Your task to perform on an android device: open app "Firefox Browser" (install if not already installed) and enter user name: "hashed@outlook.com" and password: "congestive" Image 0: 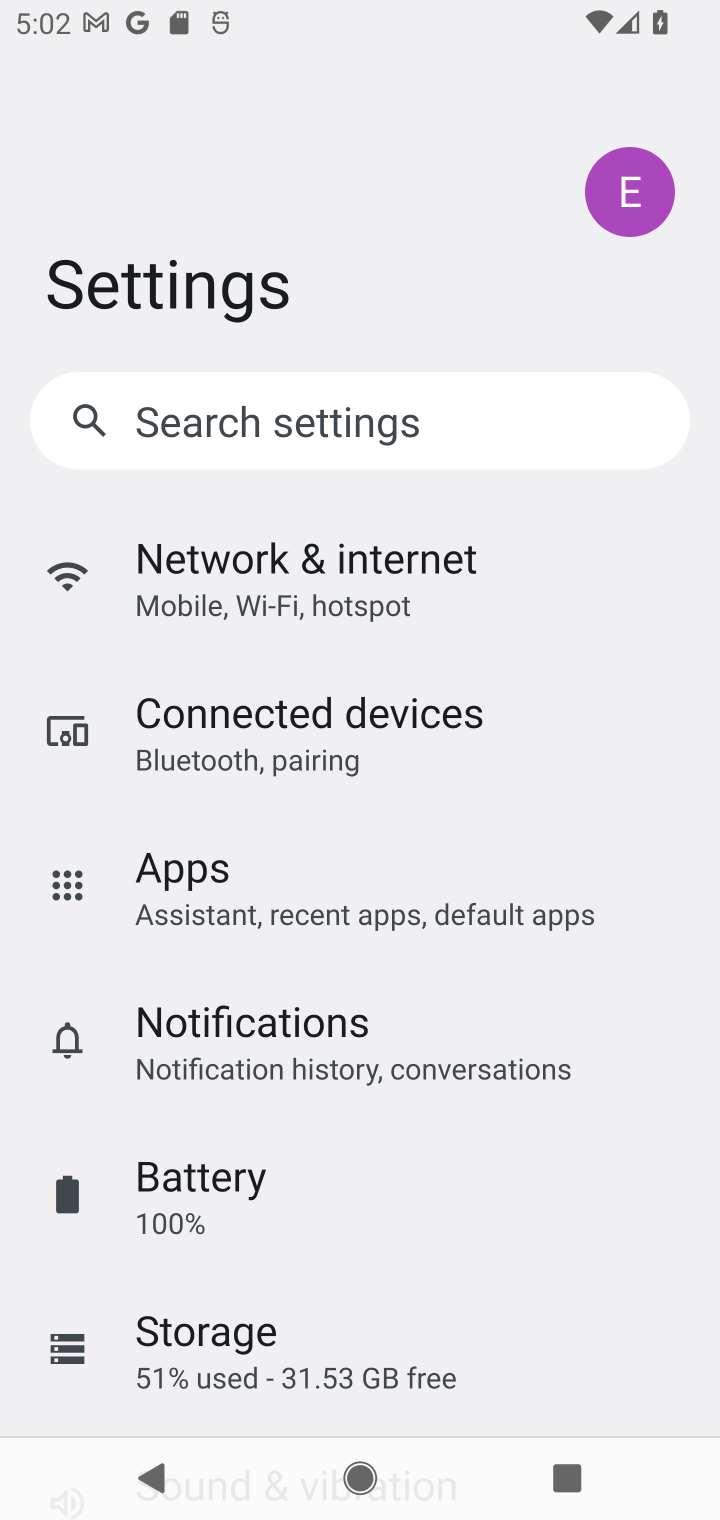
Step 0: press home button
Your task to perform on an android device: open app "Firefox Browser" (install if not already installed) and enter user name: "hashed@outlook.com" and password: "congestive" Image 1: 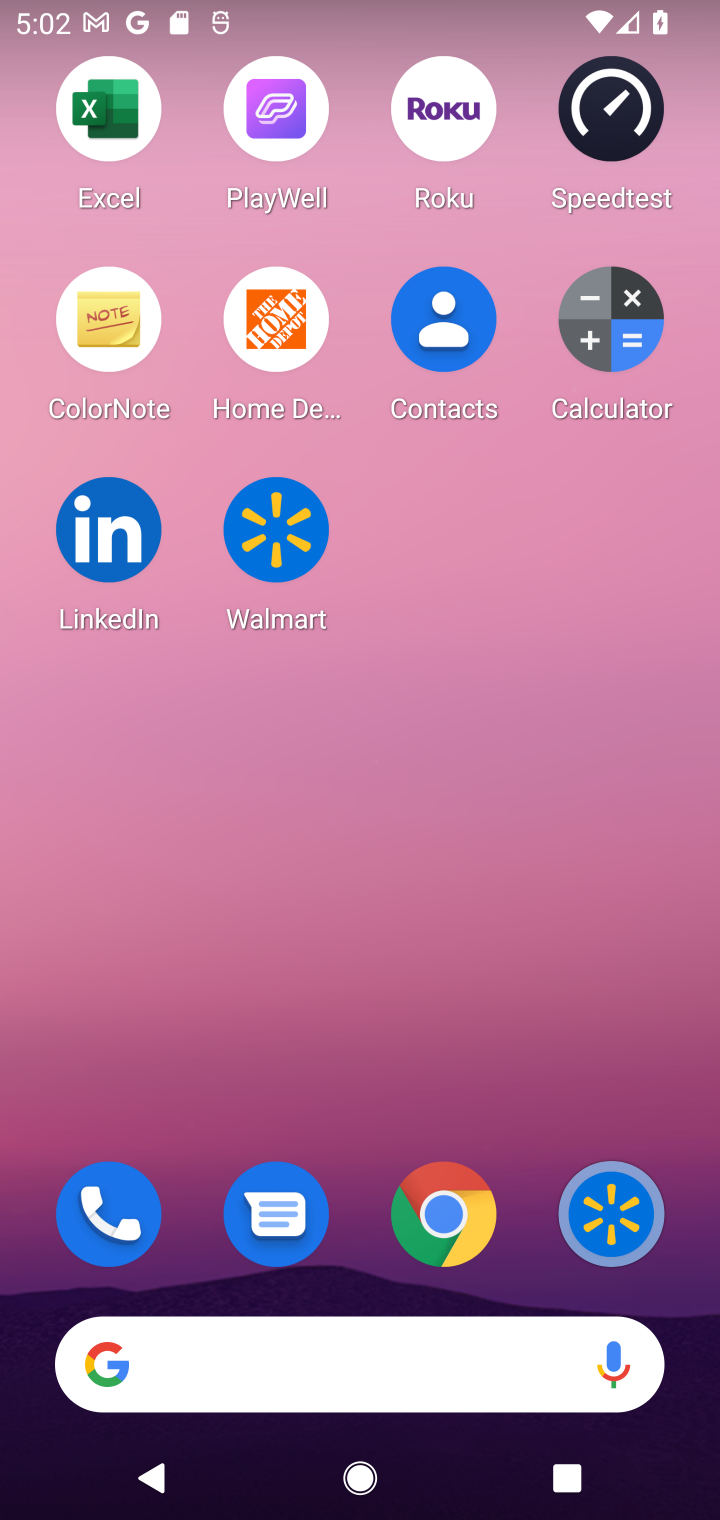
Step 1: drag from (520, 1280) to (504, 255)
Your task to perform on an android device: open app "Firefox Browser" (install if not already installed) and enter user name: "hashed@outlook.com" and password: "congestive" Image 2: 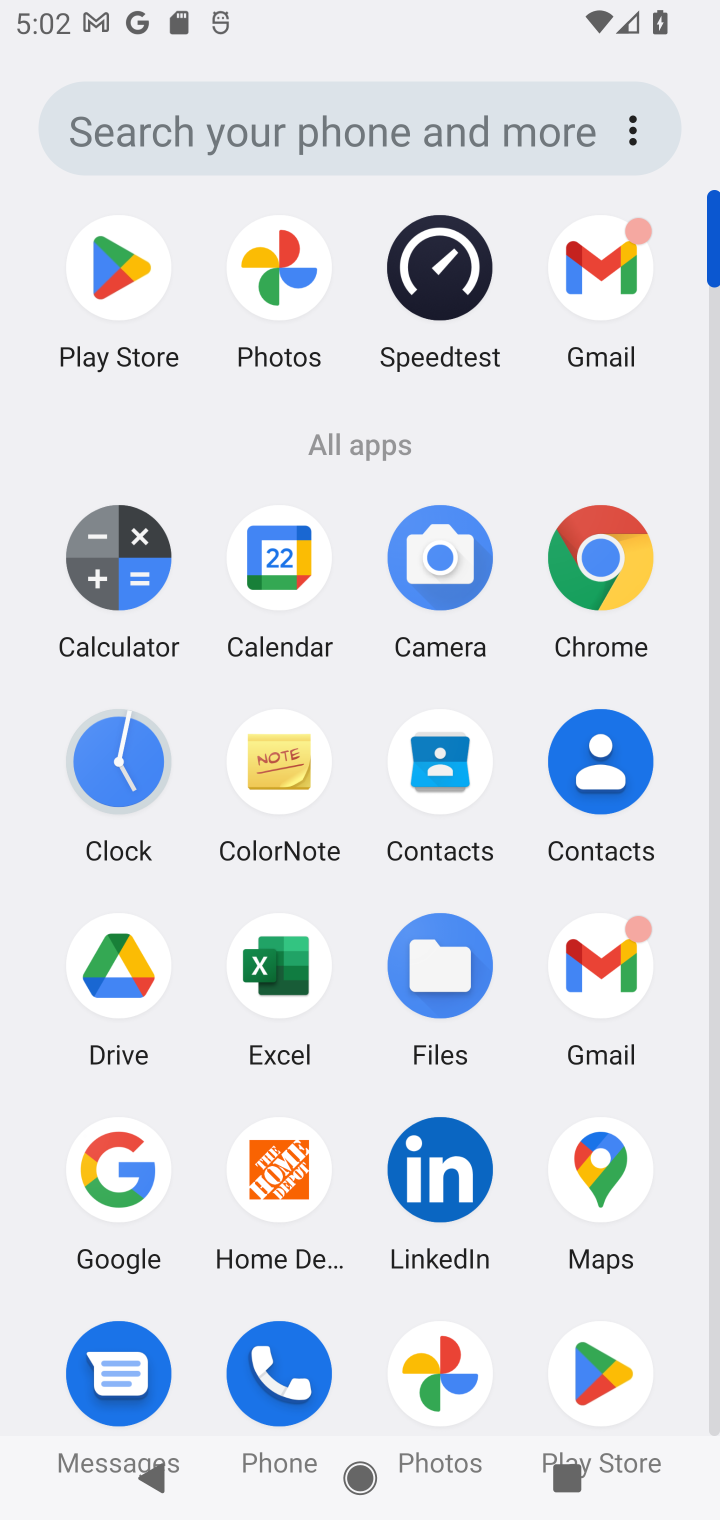
Step 2: click (600, 1368)
Your task to perform on an android device: open app "Firefox Browser" (install if not already installed) and enter user name: "hashed@outlook.com" and password: "congestive" Image 3: 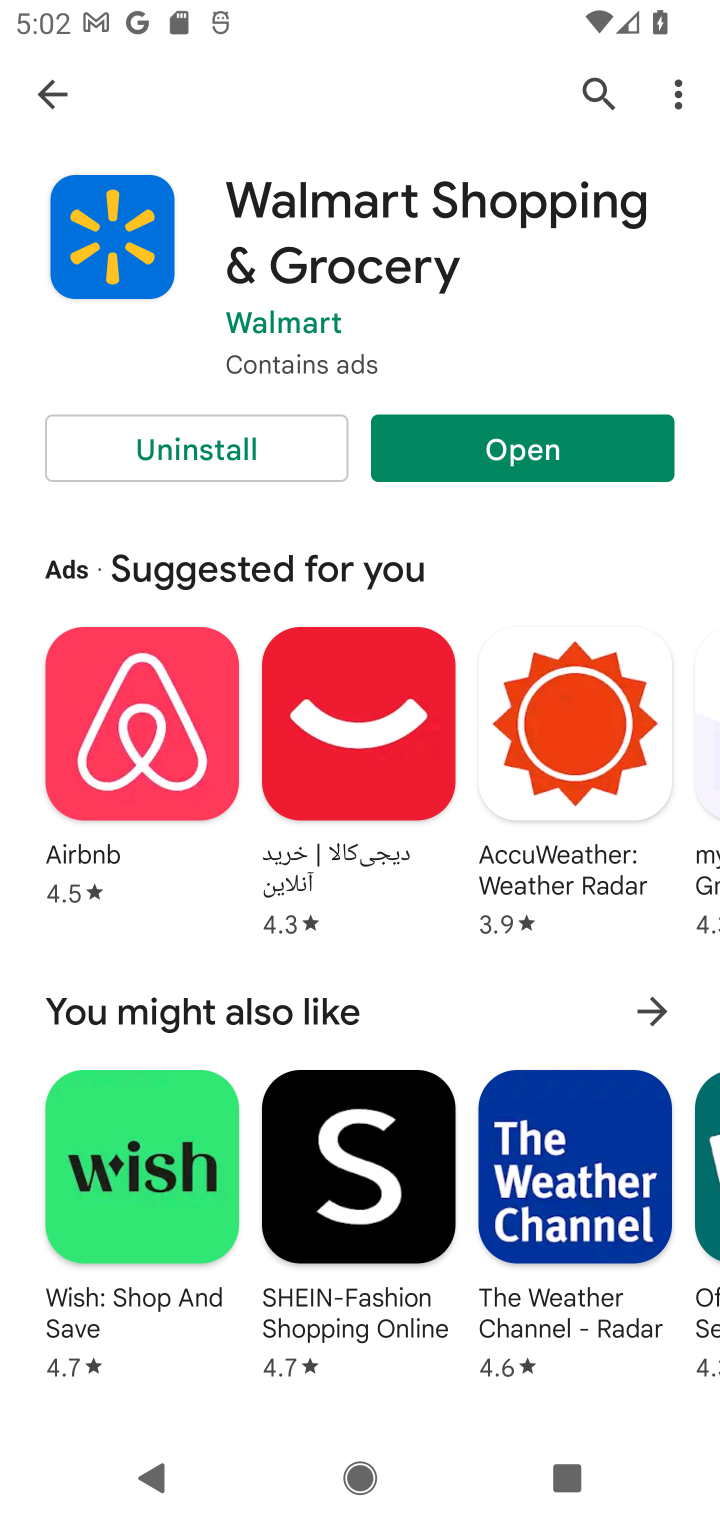
Step 3: click (585, 93)
Your task to perform on an android device: open app "Firefox Browser" (install if not already installed) and enter user name: "hashed@outlook.com" and password: "congestive" Image 4: 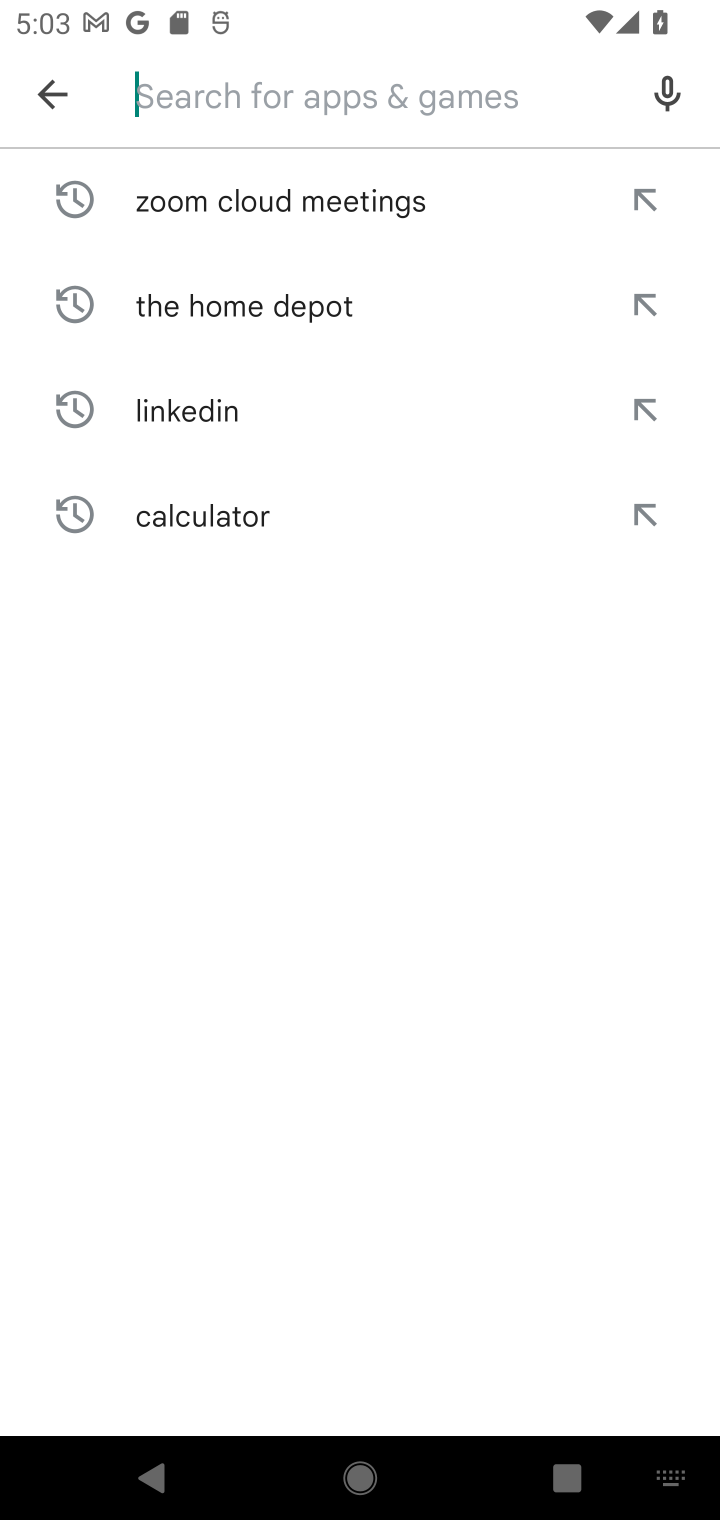
Step 4: type "Firefox Browser"
Your task to perform on an android device: open app "Firefox Browser" (install if not already installed) and enter user name: "hashed@outlook.com" and password: "congestive" Image 5: 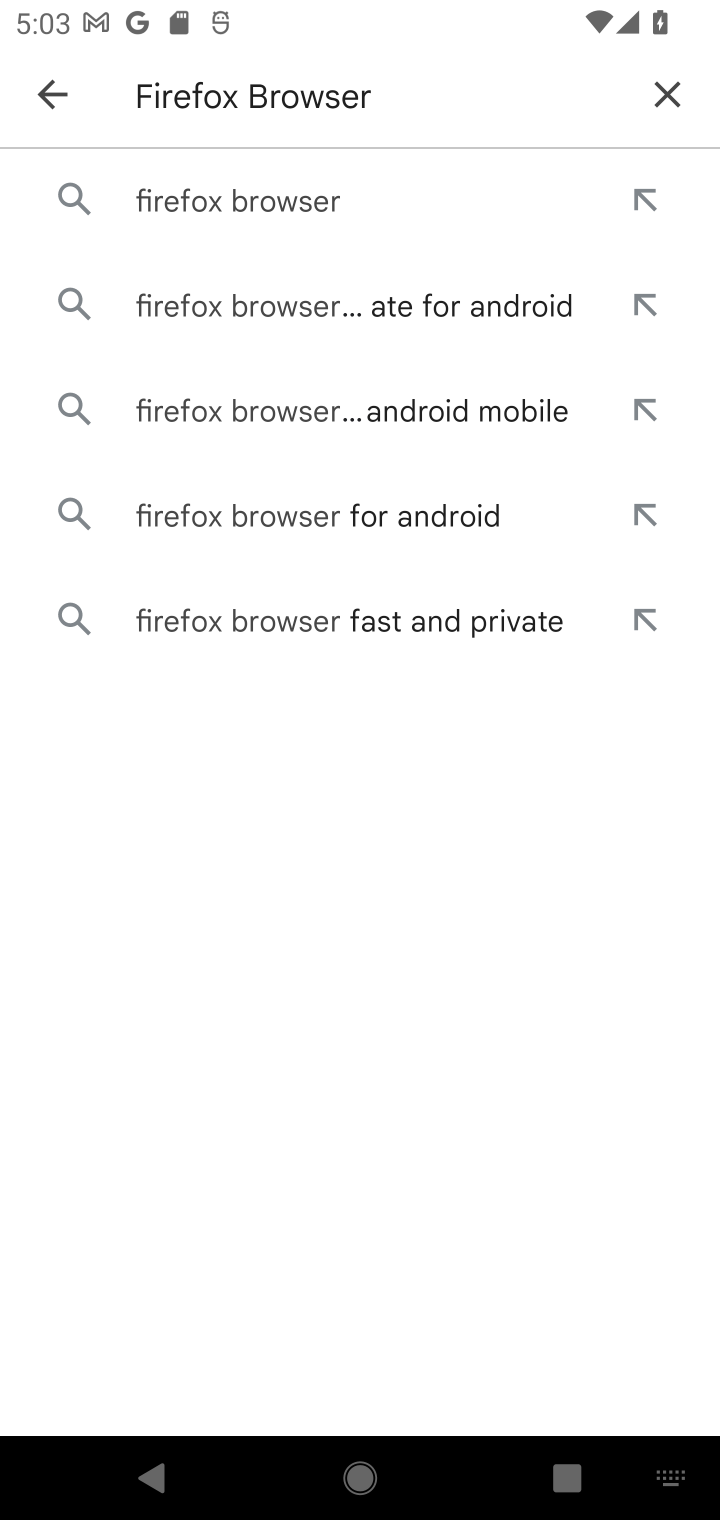
Step 5: click (304, 180)
Your task to perform on an android device: open app "Firefox Browser" (install if not already installed) and enter user name: "hashed@outlook.com" and password: "congestive" Image 6: 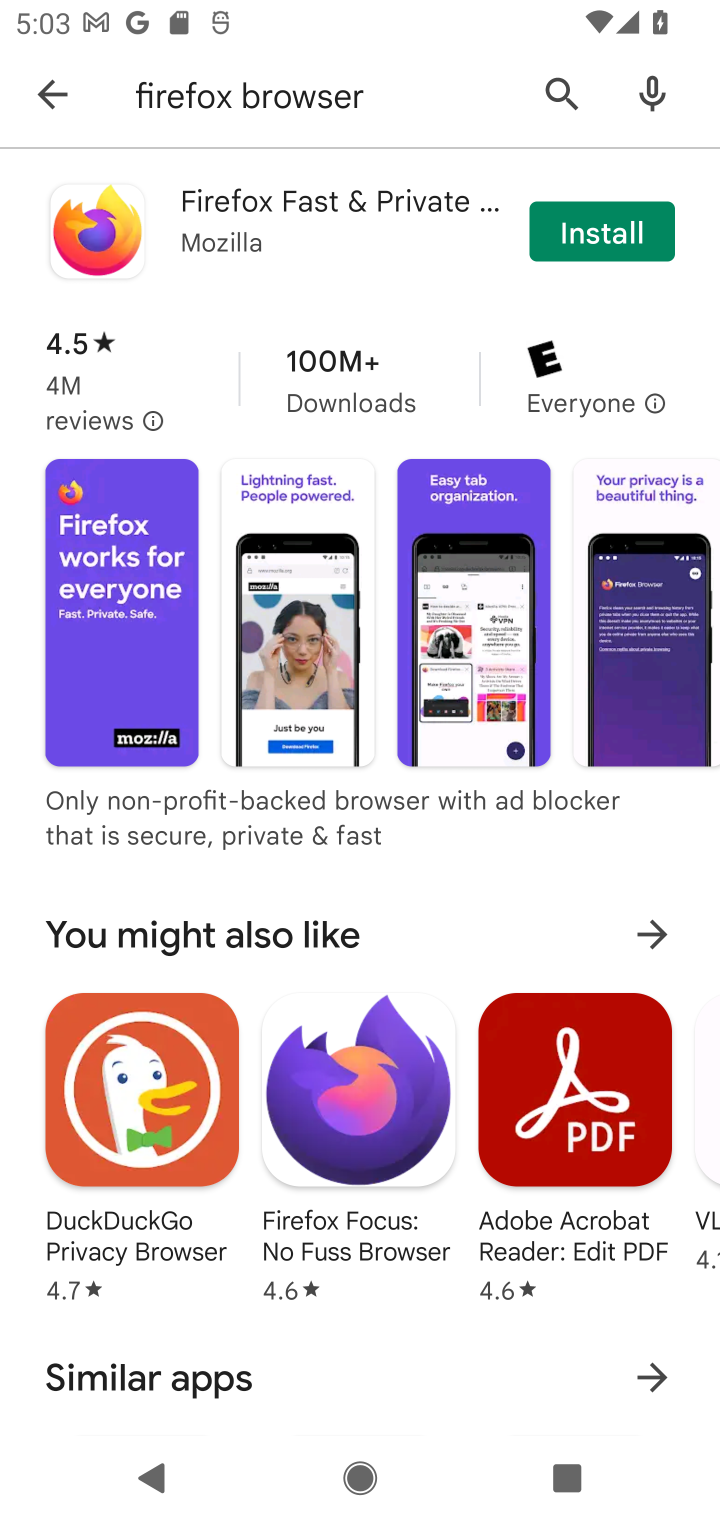
Step 6: click (594, 236)
Your task to perform on an android device: open app "Firefox Browser" (install if not already installed) and enter user name: "hashed@outlook.com" and password: "congestive" Image 7: 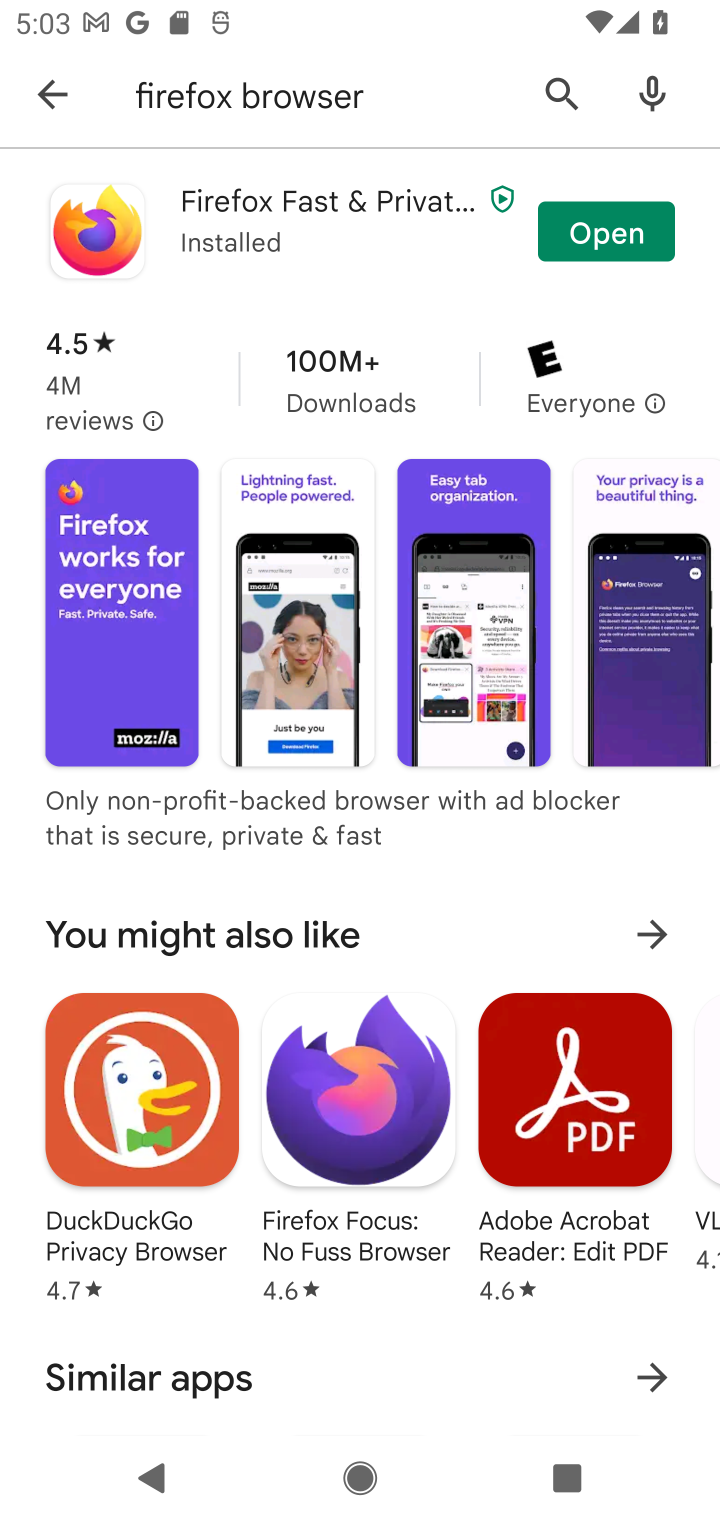
Step 7: click (583, 228)
Your task to perform on an android device: open app "Firefox Browser" (install if not already installed) and enter user name: "hashed@outlook.com" and password: "congestive" Image 8: 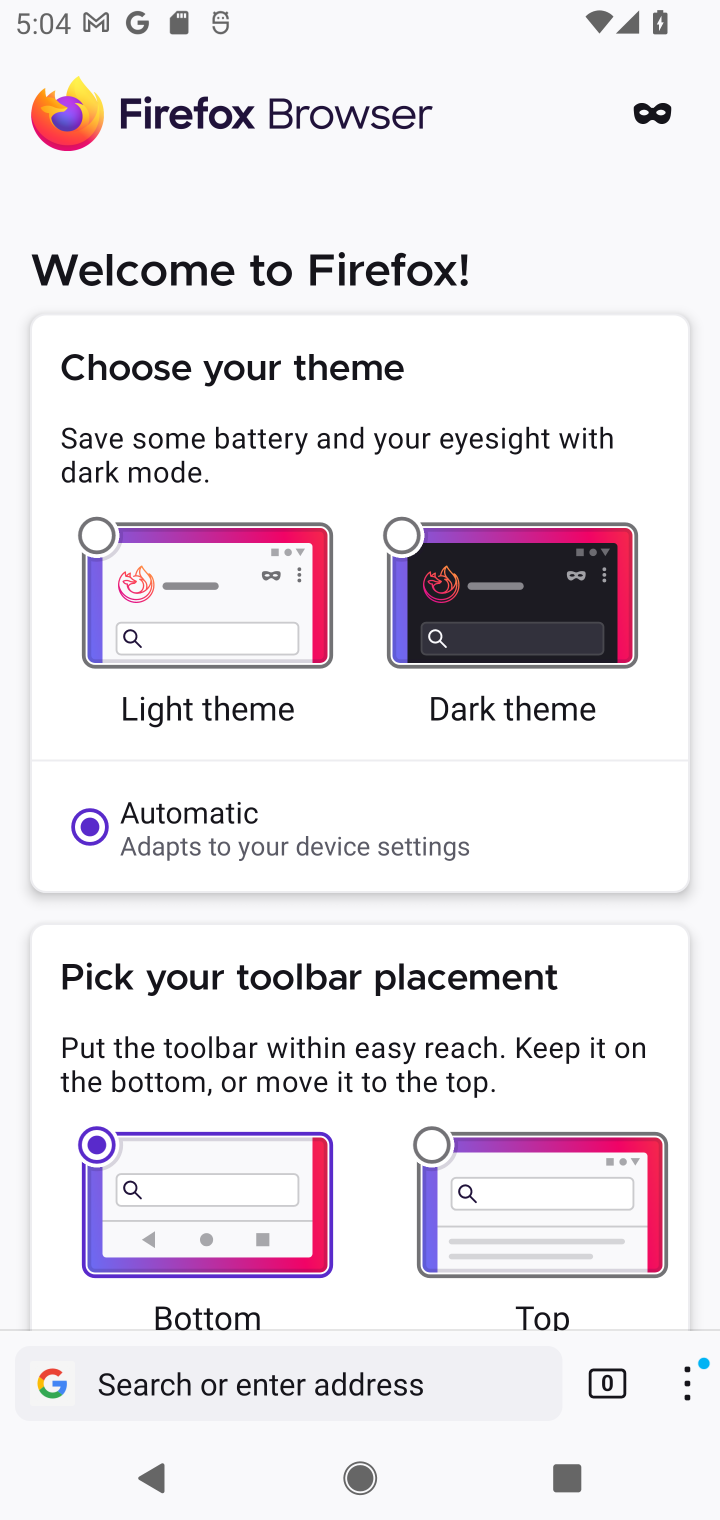
Step 8: drag from (364, 1283) to (346, 223)
Your task to perform on an android device: open app "Firefox Browser" (install if not already installed) and enter user name: "hashed@outlook.com" and password: "congestive" Image 9: 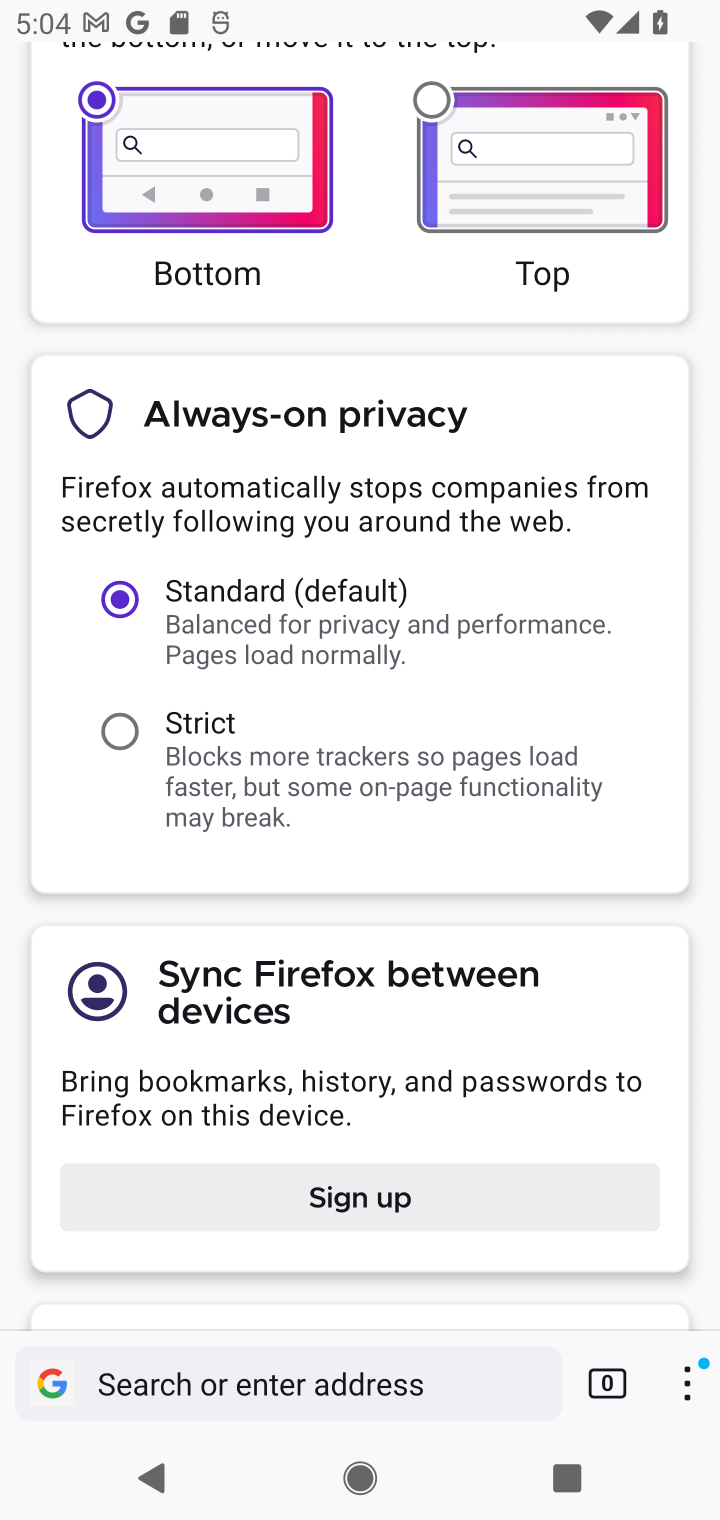
Step 9: drag from (353, 1073) to (316, 370)
Your task to perform on an android device: open app "Firefox Browser" (install if not already installed) and enter user name: "hashed@outlook.com" and password: "congestive" Image 10: 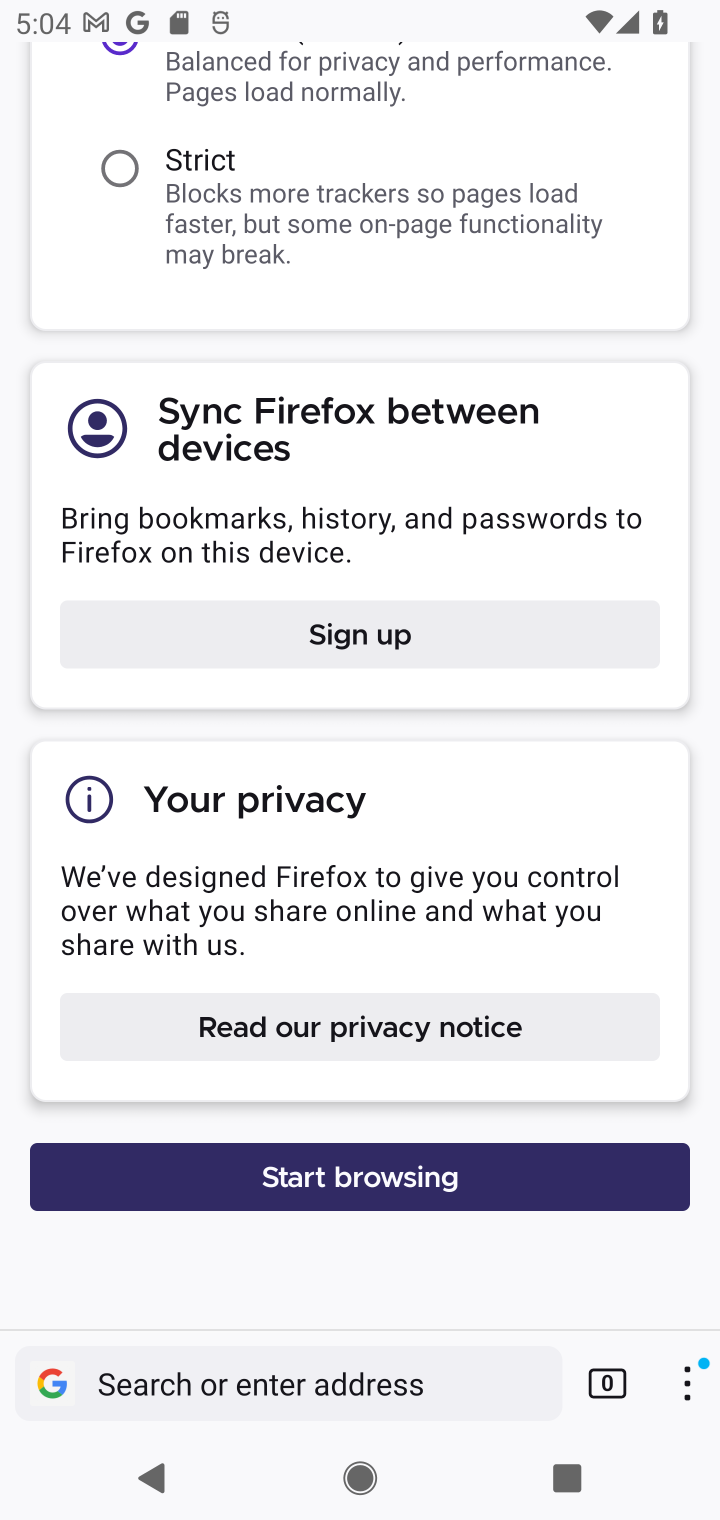
Step 10: click (352, 632)
Your task to perform on an android device: open app "Firefox Browser" (install if not already installed) and enter user name: "hashed@outlook.com" and password: "congestive" Image 11: 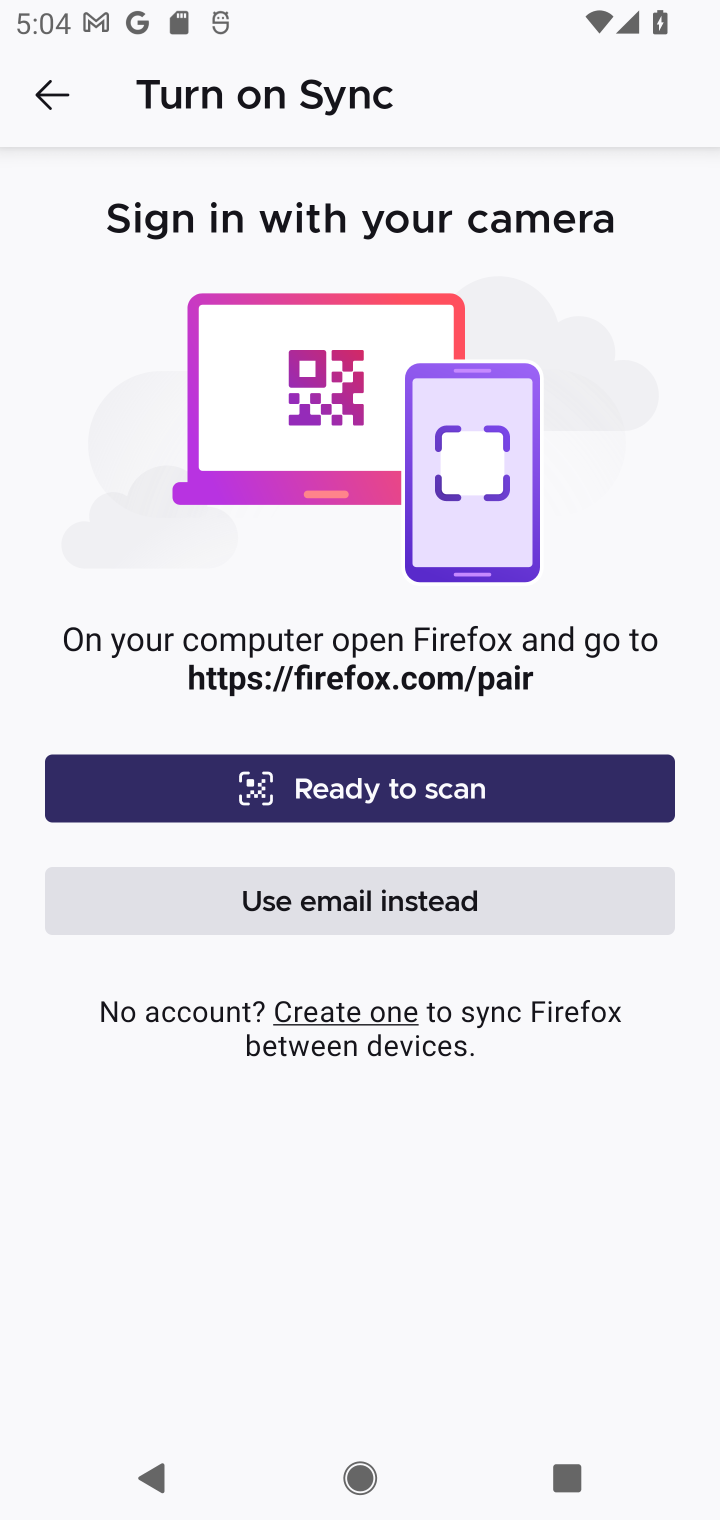
Step 11: task complete